Your task to perform on an android device: Go to calendar. Show me events next week Image 0: 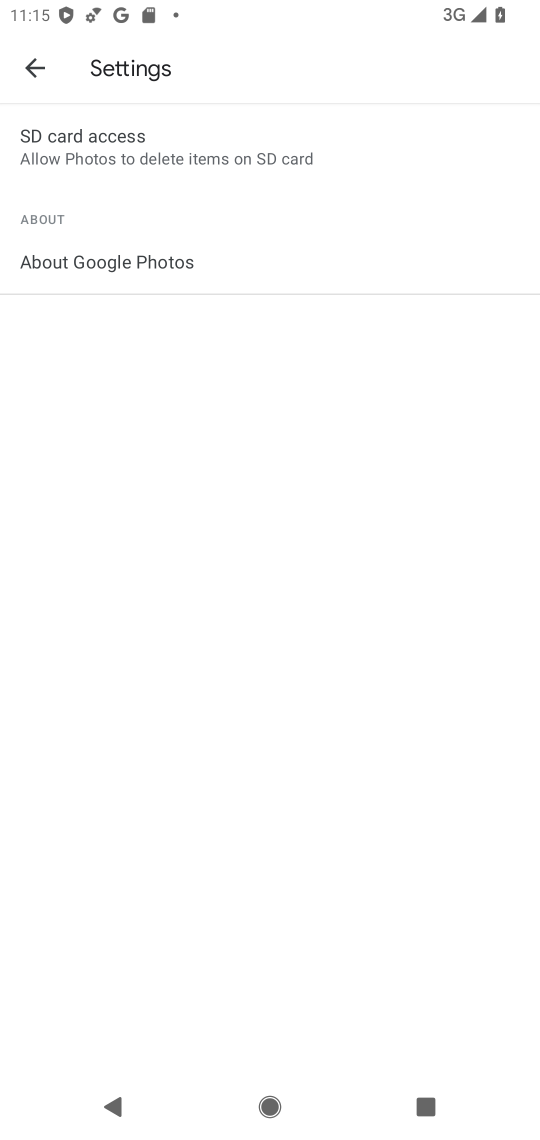
Step 0: press home button
Your task to perform on an android device: Go to calendar. Show me events next week Image 1: 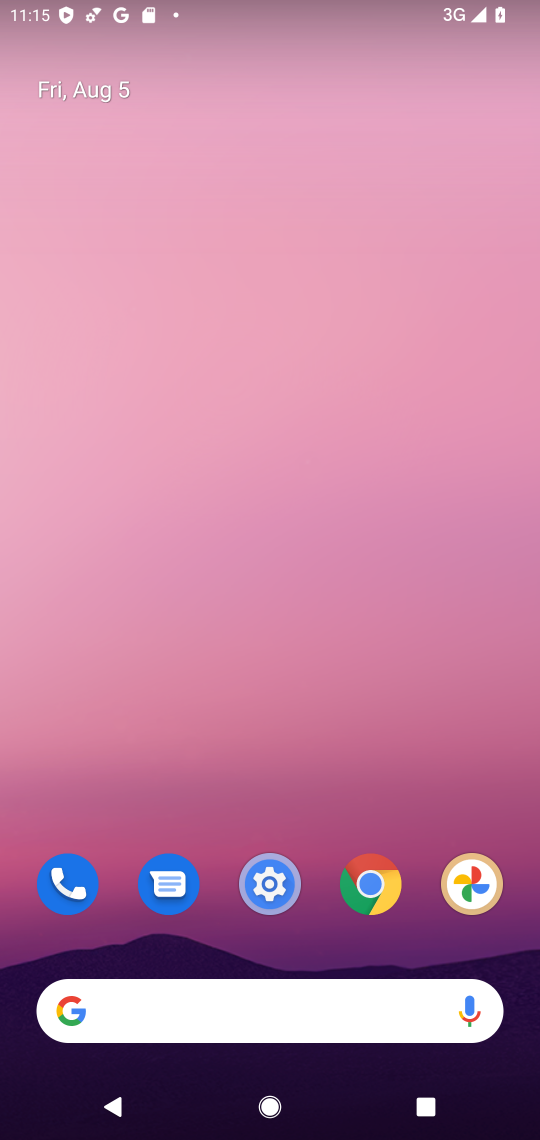
Step 1: click (314, 366)
Your task to perform on an android device: Go to calendar. Show me events next week Image 2: 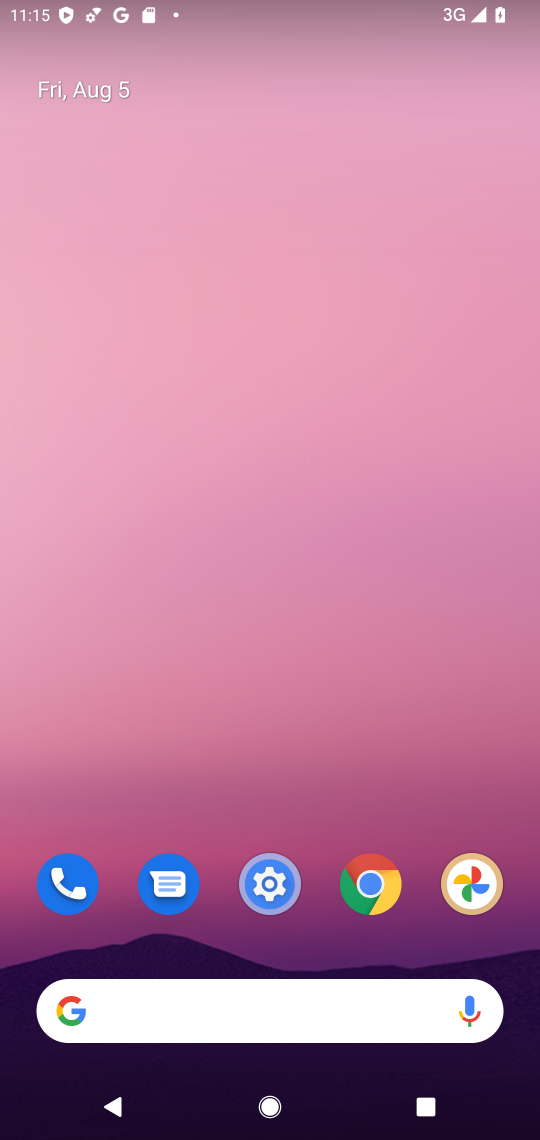
Step 2: drag from (312, 617) to (360, 15)
Your task to perform on an android device: Go to calendar. Show me events next week Image 3: 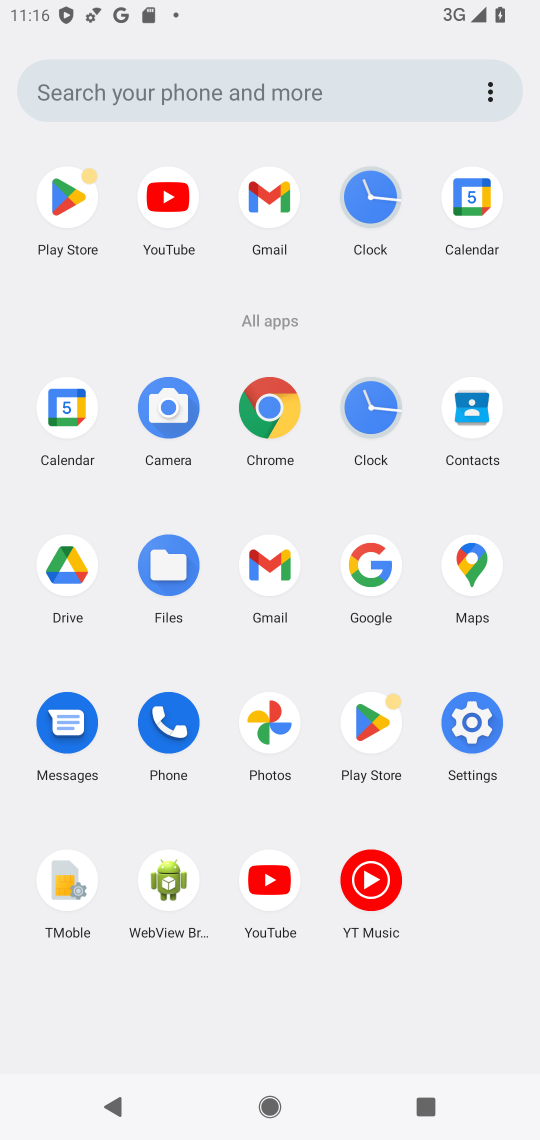
Step 3: click (465, 200)
Your task to perform on an android device: Go to calendar. Show me events next week Image 4: 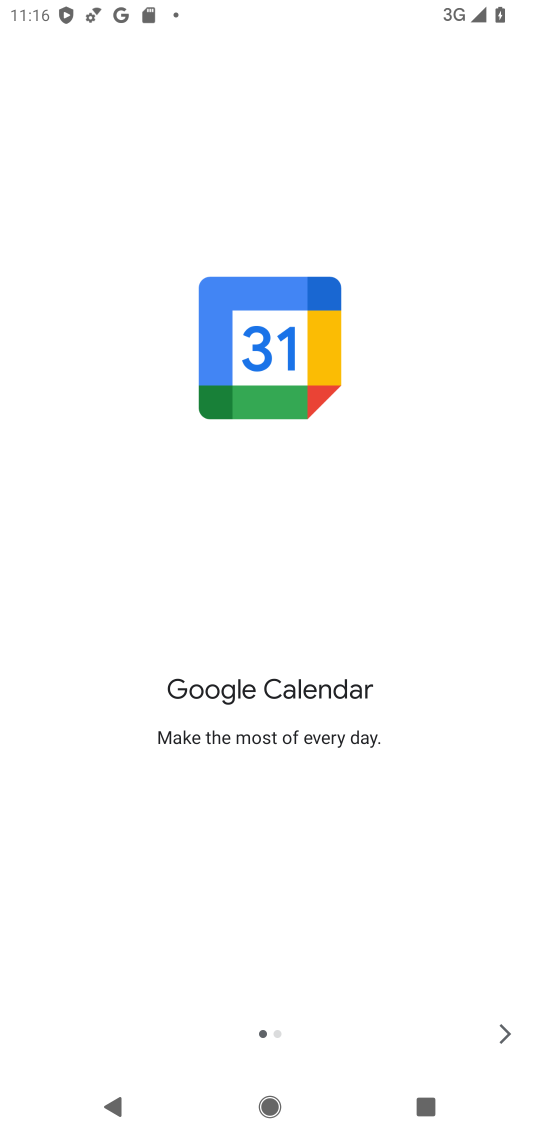
Step 4: click (510, 1044)
Your task to perform on an android device: Go to calendar. Show me events next week Image 5: 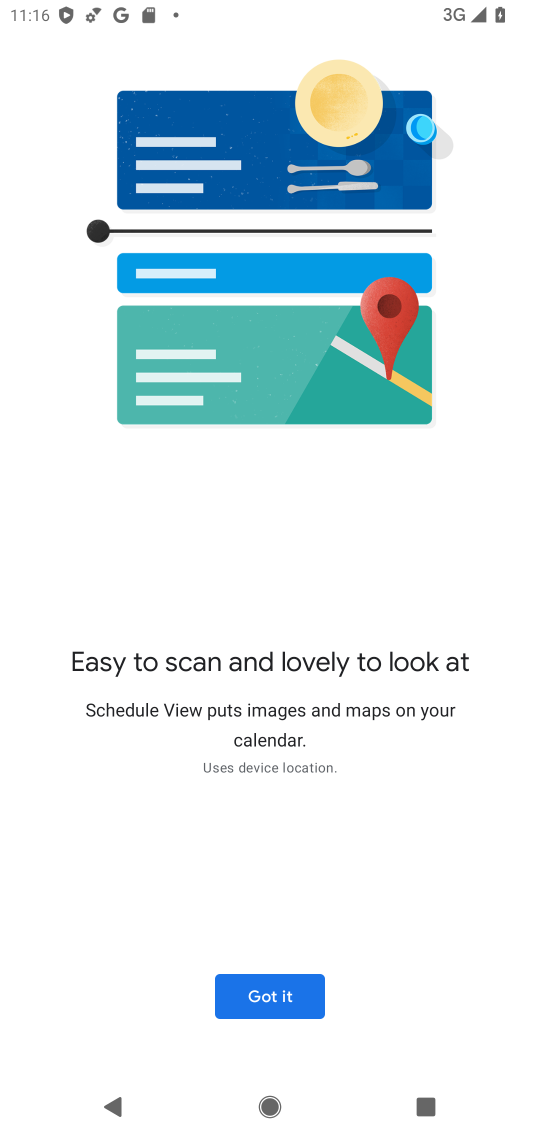
Step 5: click (287, 1012)
Your task to perform on an android device: Go to calendar. Show me events next week Image 6: 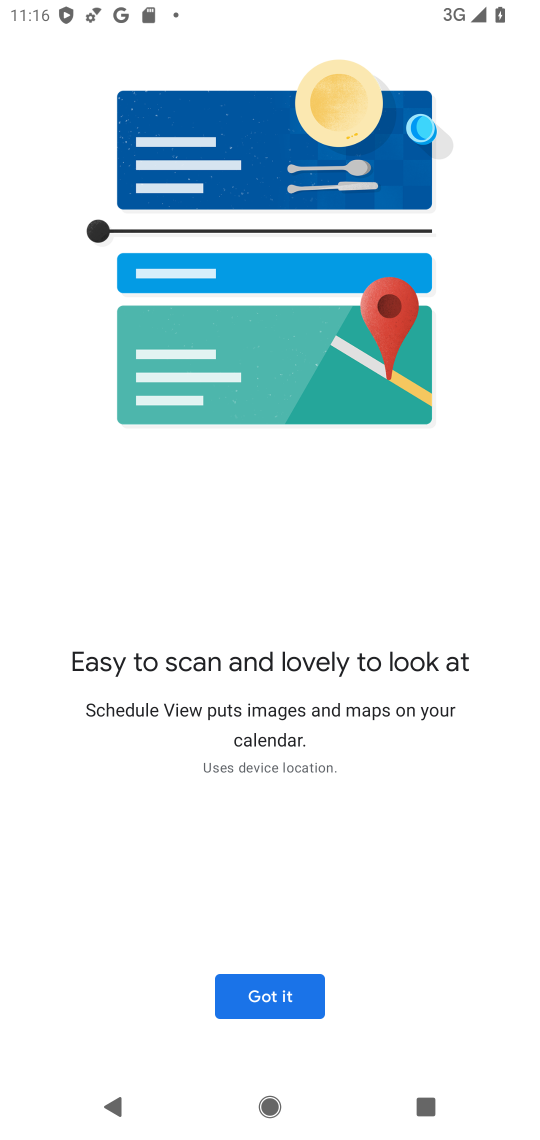
Step 6: click (287, 1012)
Your task to perform on an android device: Go to calendar. Show me events next week Image 7: 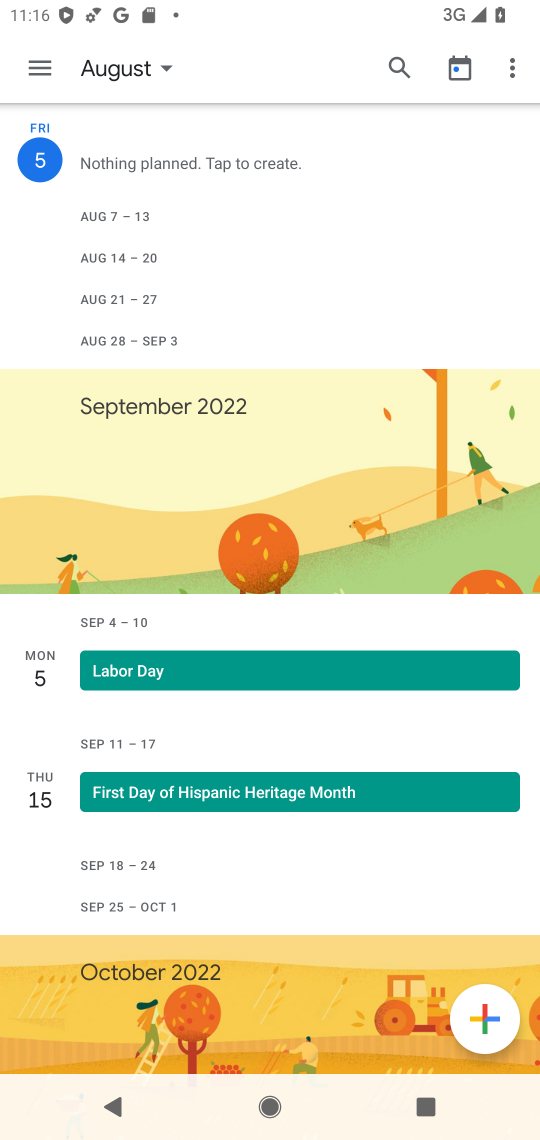
Step 7: click (137, 75)
Your task to perform on an android device: Go to calendar. Show me events next week Image 8: 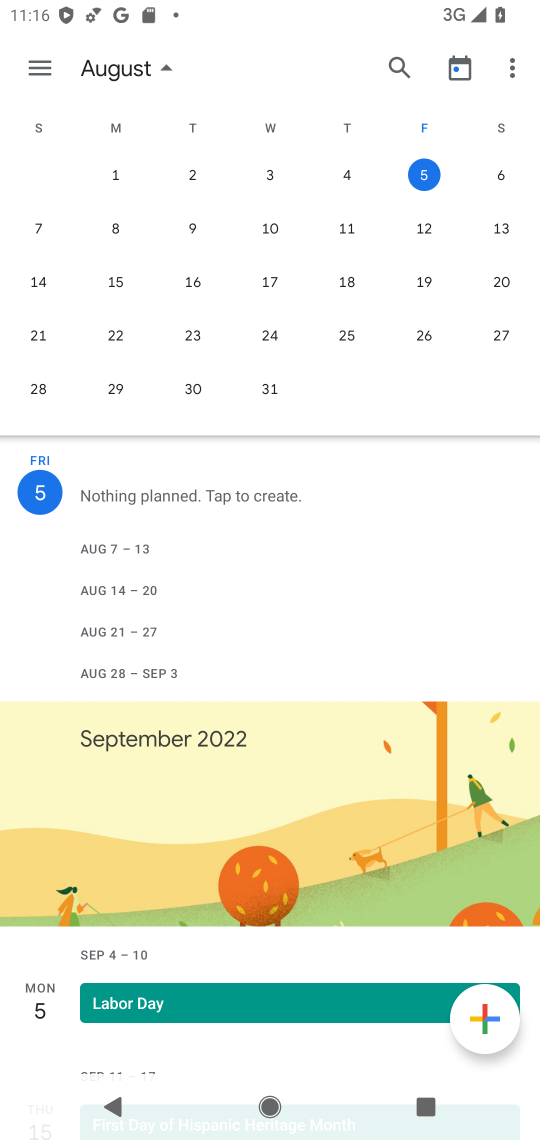
Step 8: click (52, 223)
Your task to perform on an android device: Go to calendar. Show me events next week Image 9: 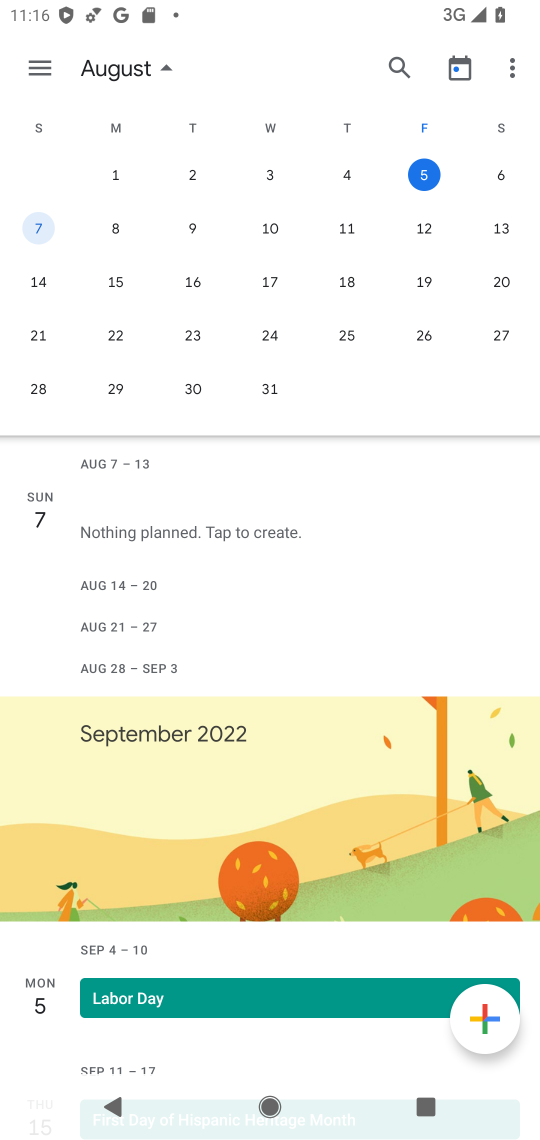
Step 9: click (107, 220)
Your task to perform on an android device: Go to calendar. Show me events next week Image 10: 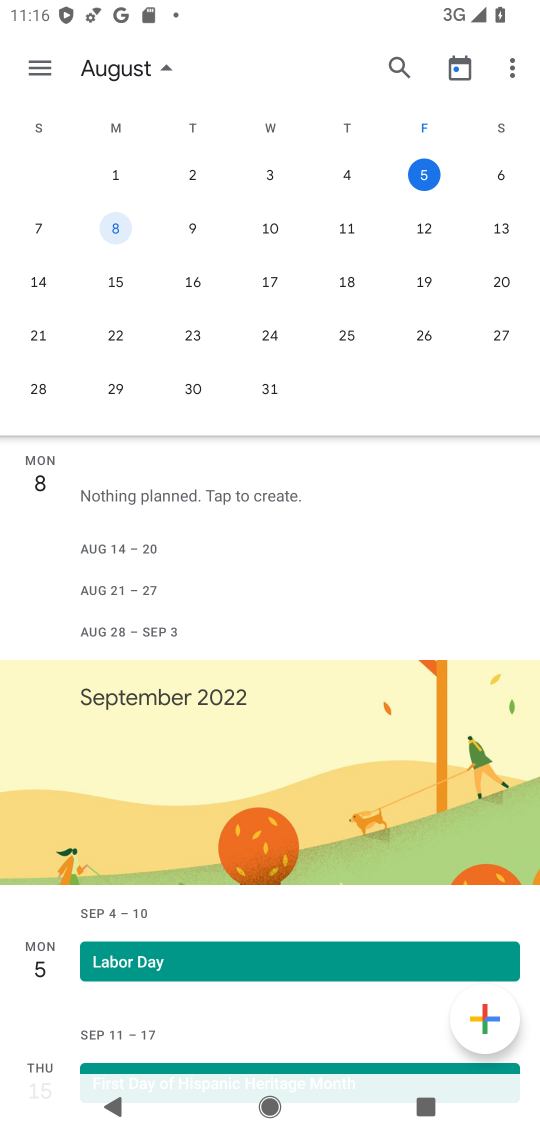
Step 10: click (180, 220)
Your task to perform on an android device: Go to calendar. Show me events next week Image 11: 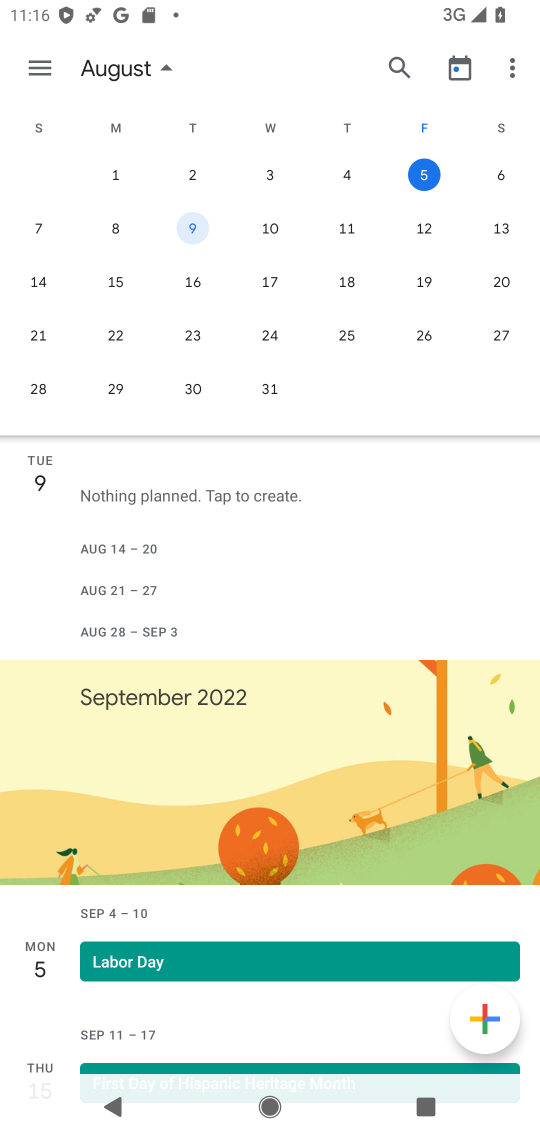
Step 11: click (285, 220)
Your task to perform on an android device: Go to calendar. Show me events next week Image 12: 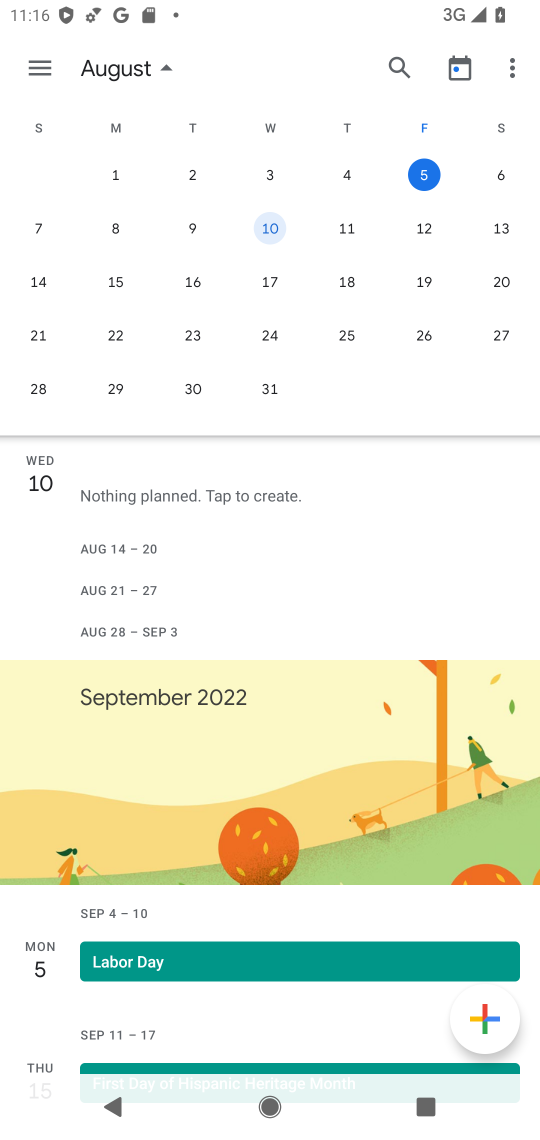
Step 12: click (370, 219)
Your task to perform on an android device: Go to calendar. Show me events next week Image 13: 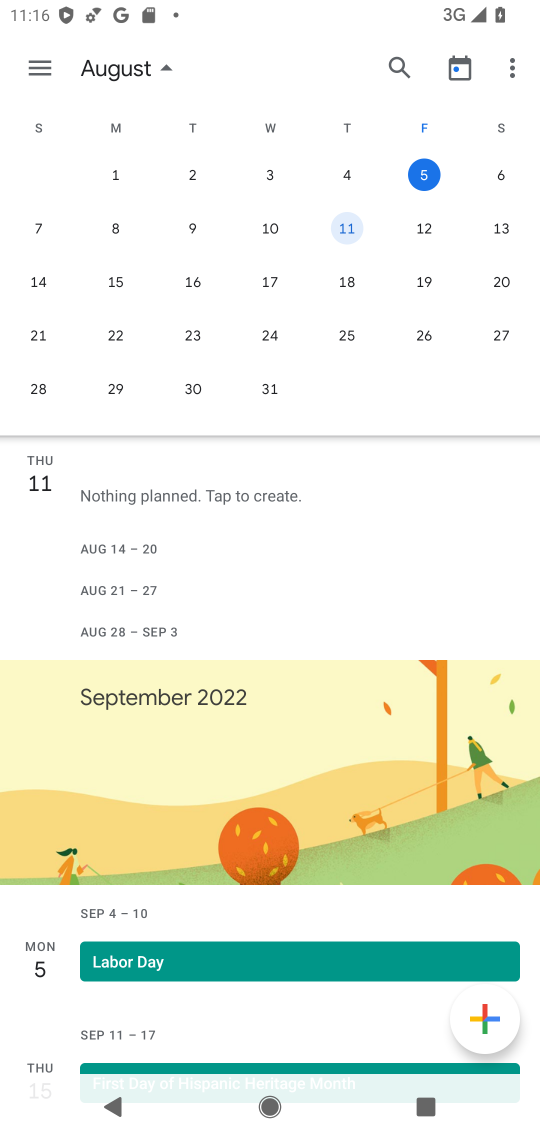
Step 13: click (434, 225)
Your task to perform on an android device: Go to calendar. Show me events next week Image 14: 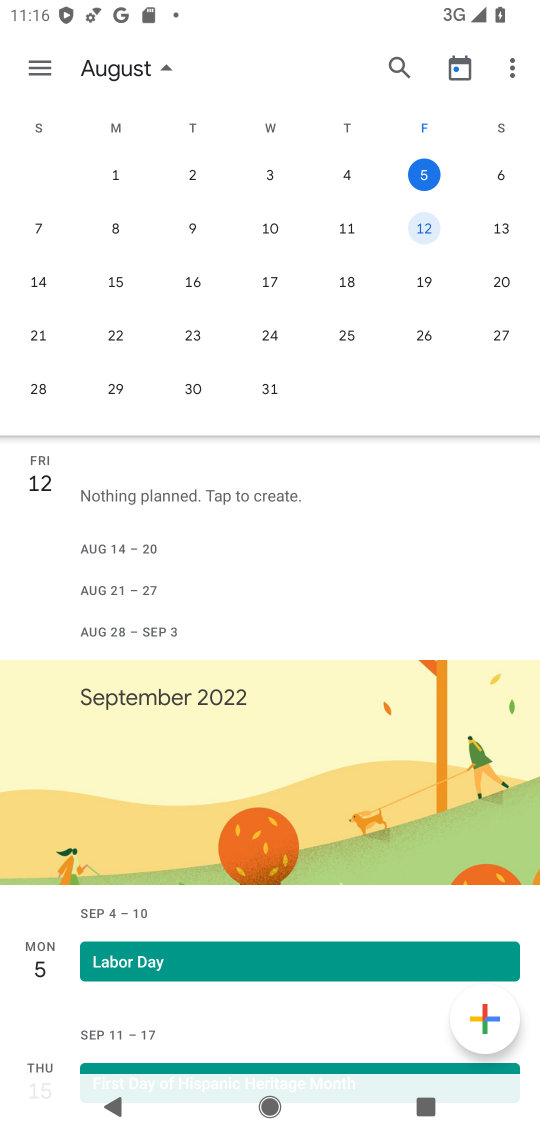
Step 14: click (491, 225)
Your task to perform on an android device: Go to calendar. Show me events next week Image 15: 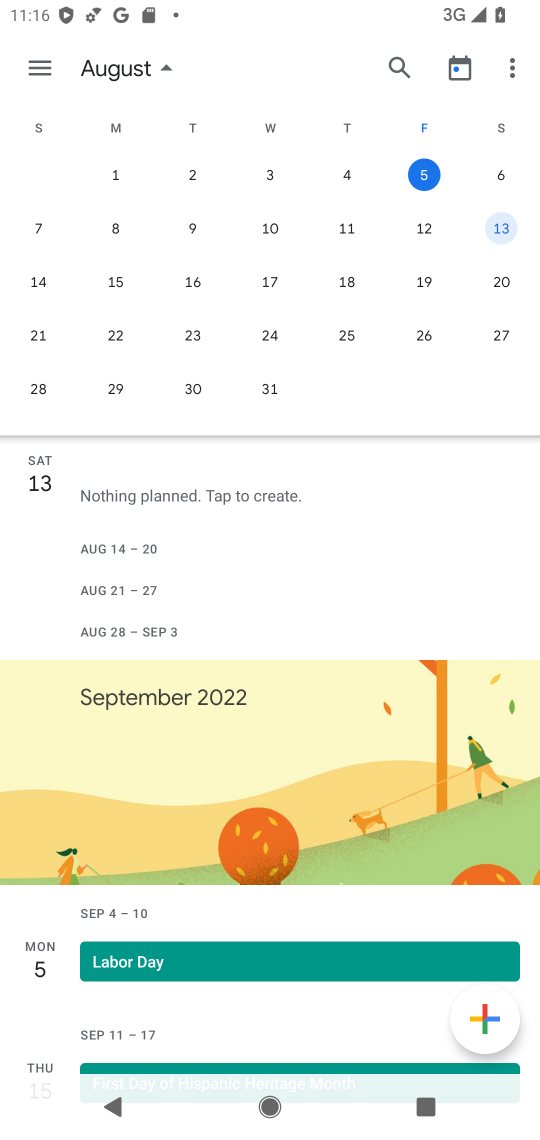
Step 15: task complete